Your task to perform on an android device: turn off improve location accuracy Image 0: 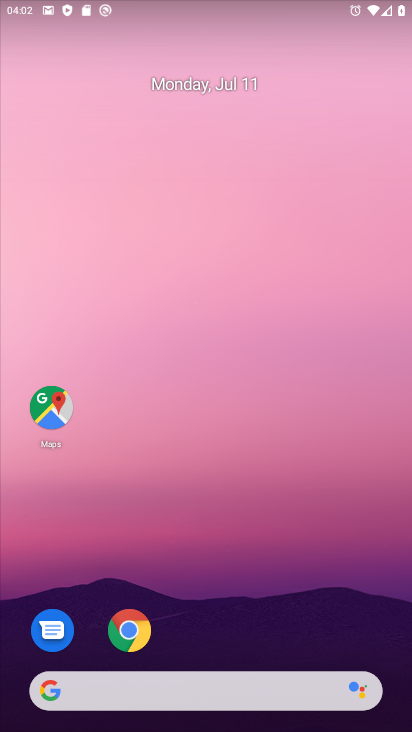
Step 0: press home button
Your task to perform on an android device: turn off improve location accuracy Image 1: 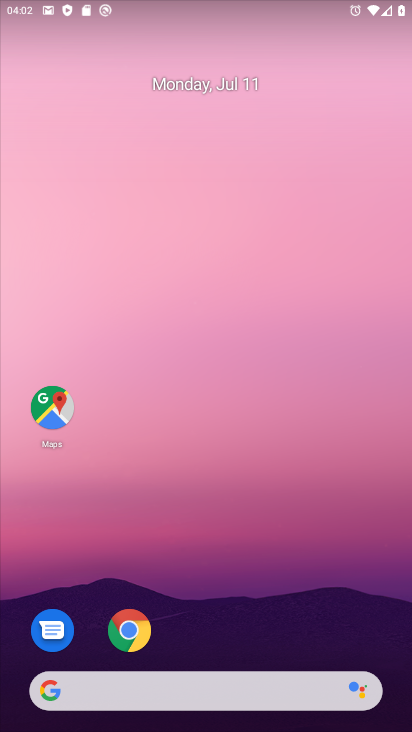
Step 1: drag from (220, 643) to (283, 70)
Your task to perform on an android device: turn off improve location accuracy Image 2: 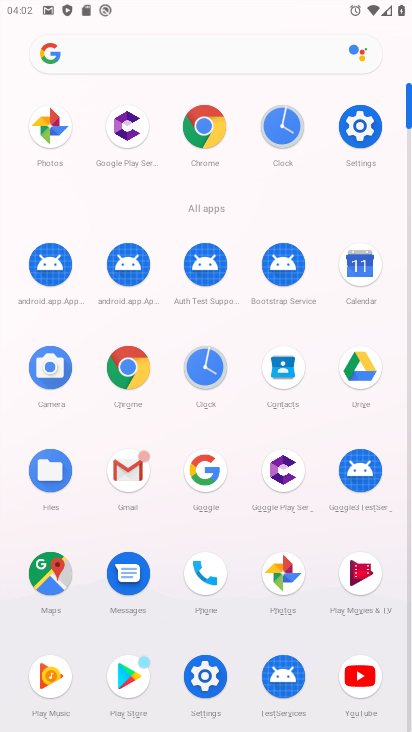
Step 2: click (357, 119)
Your task to perform on an android device: turn off improve location accuracy Image 3: 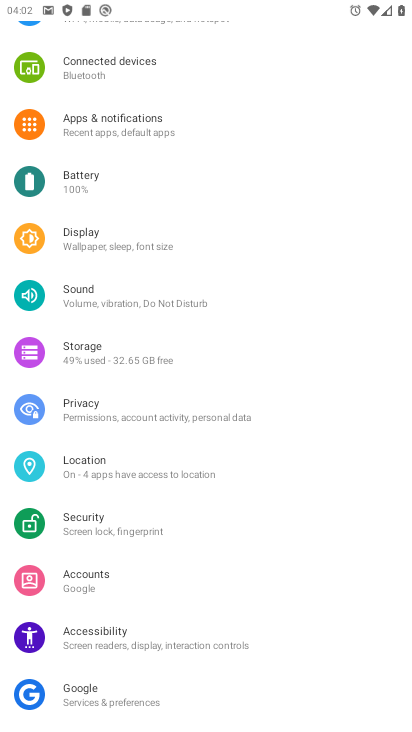
Step 3: click (113, 461)
Your task to perform on an android device: turn off improve location accuracy Image 4: 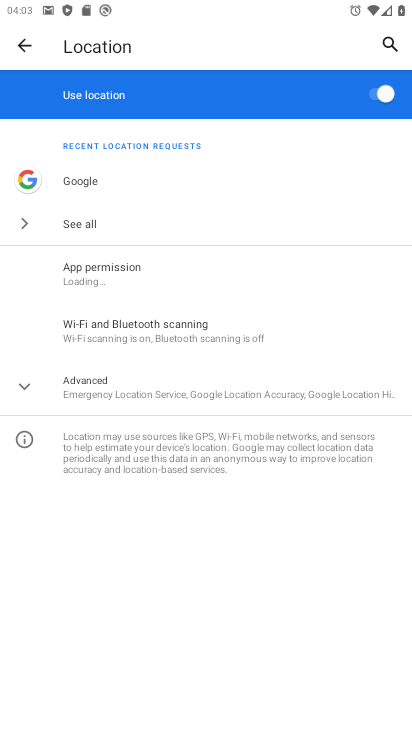
Step 4: click (21, 379)
Your task to perform on an android device: turn off improve location accuracy Image 5: 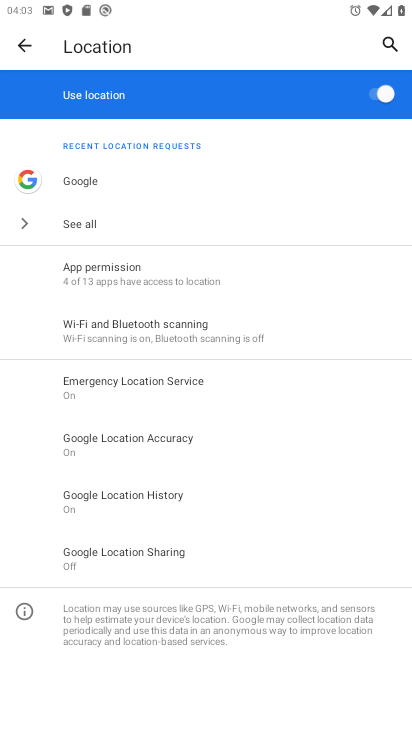
Step 5: click (142, 439)
Your task to perform on an android device: turn off improve location accuracy Image 6: 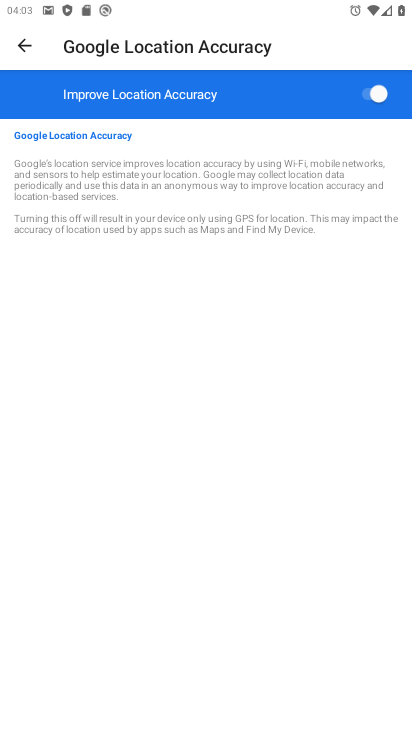
Step 6: click (368, 90)
Your task to perform on an android device: turn off improve location accuracy Image 7: 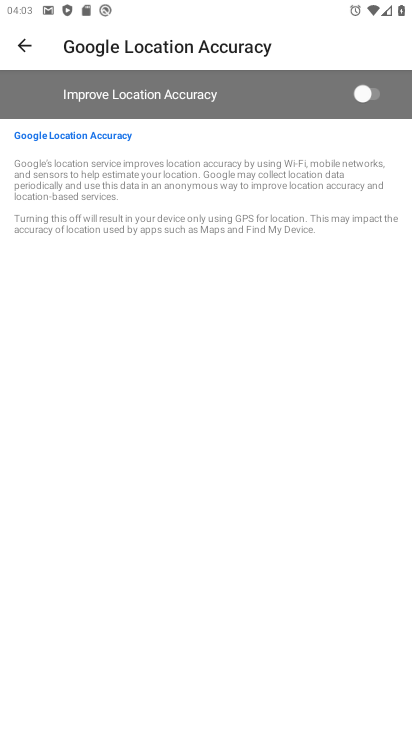
Step 7: task complete